Your task to perform on an android device: Go to network settings Image 0: 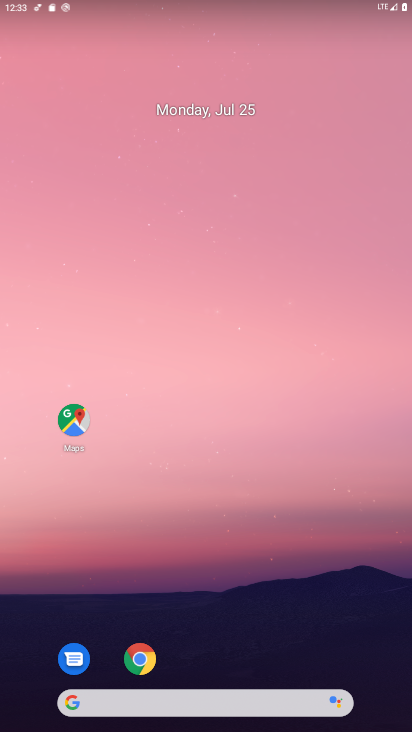
Step 0: press home button
Your task to perform on an android device: Go to network settings Image 1: 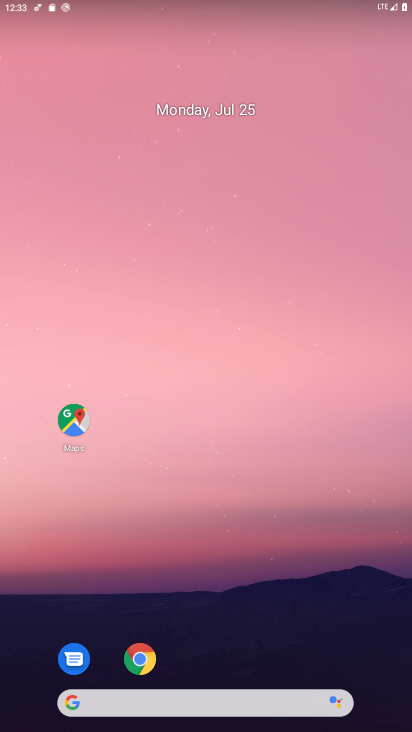
Step 1: drag from (220, 662) to (227, 39)
Your task to perform on an android device: Go to network settings Image 2: 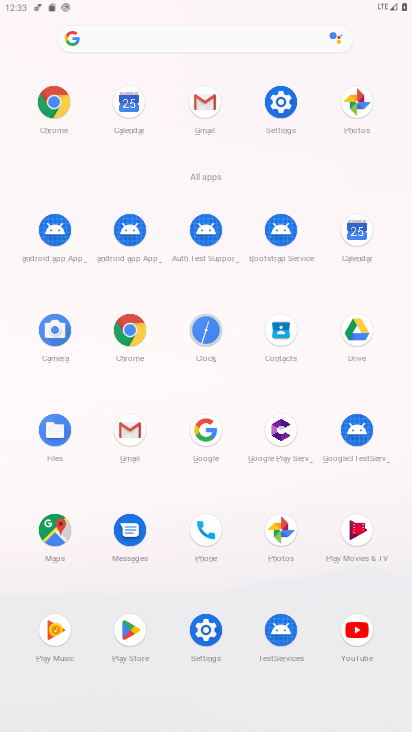
Step 2: click (280, 98)
Your task to perform on an android device: Go to network settings Image 3: 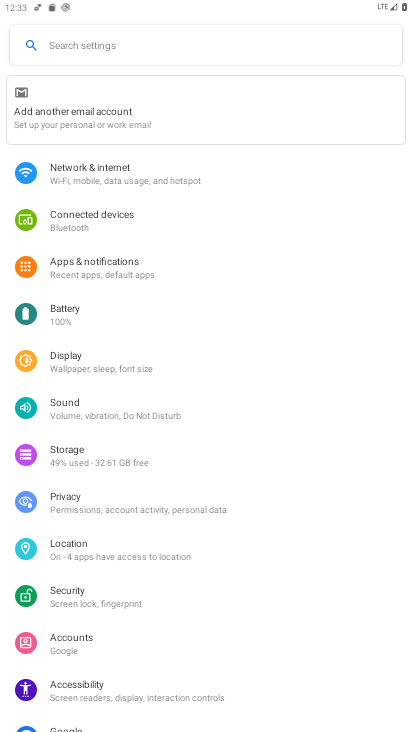
Step 3: click (146, 174)
Your task to perform on an android device: Go to network settings Image 4: 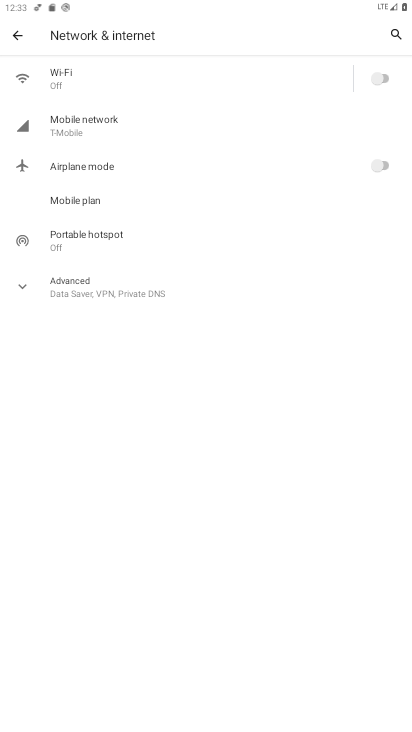
Step 4: click (25, 284)
Your task to perform on an android device: Go to network settings Image 5: 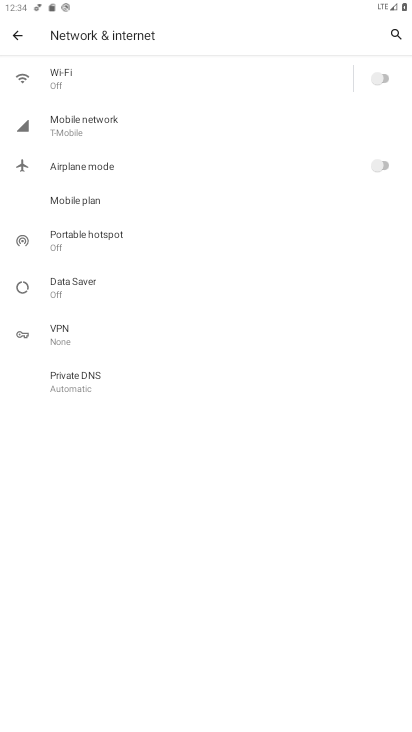
Step 5: task complete